Your task to perform on an android device: open app "DuckDuckGo Privacy Browser" (install if not already installed), go to login, and select forgot password Image 0: 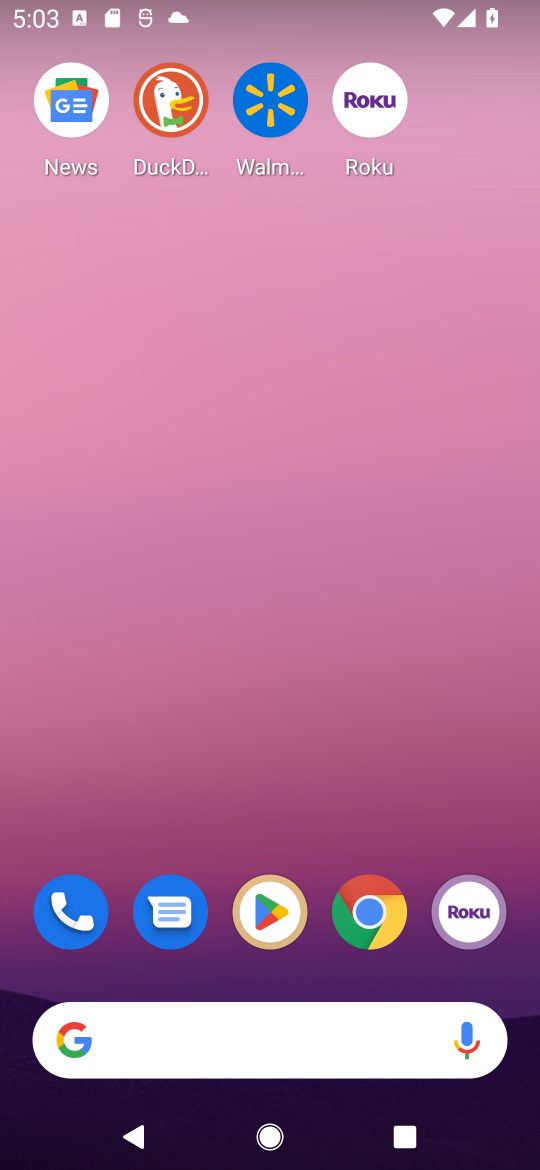
Step 0: drag from (165, 1043) to (123, 47)
Your task to perform on an android device: open app "DuckDuckGo Privacy Browser" (install if not already installed), go to login, and select forgot password Image 1: 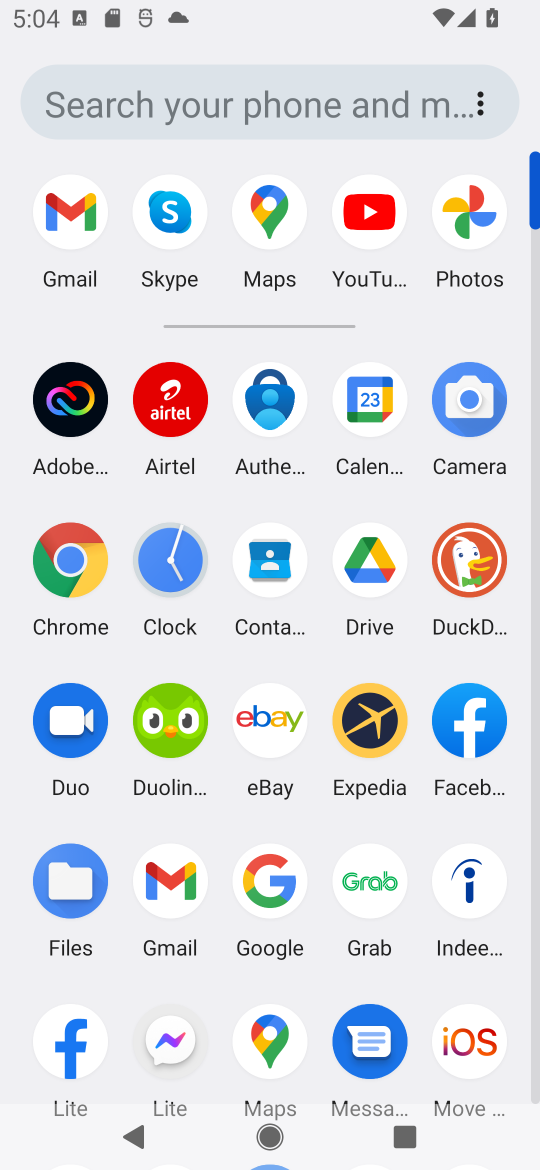
Step 1: drag from (210, 984) to (188, 656)
Your task to perform on an android device: open app "DuckDuckGo Privacy Browser" (install if not already installed), go to login, and select forgot password Image 2: 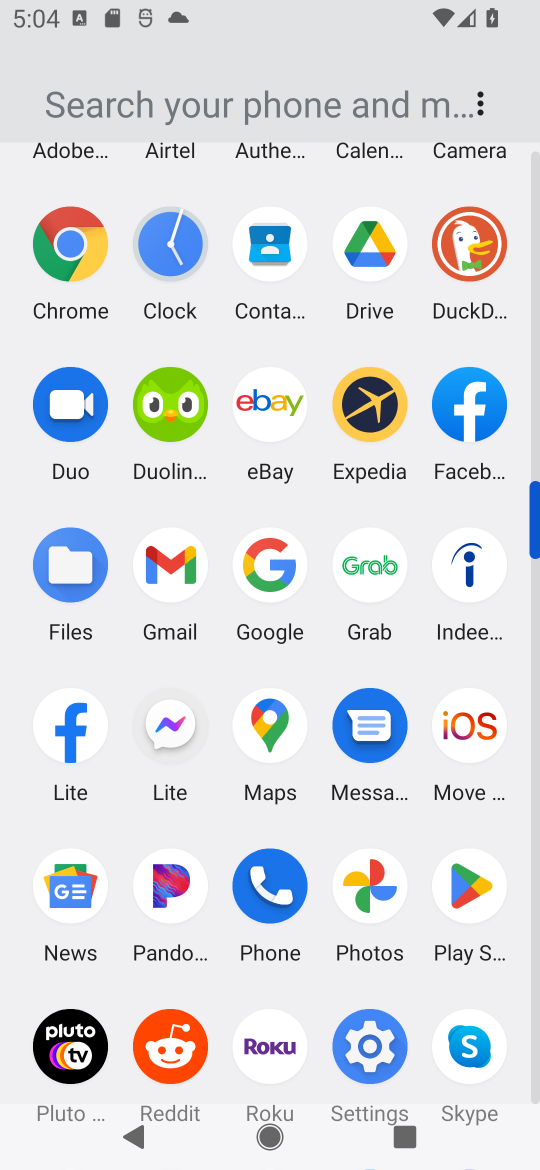
Step 2: click (476, 889)
Your task to perform on an android device: open app "DuckDuckGo Privacy Browser" (install if not already installed), go to login, and select forgot password Image 3: 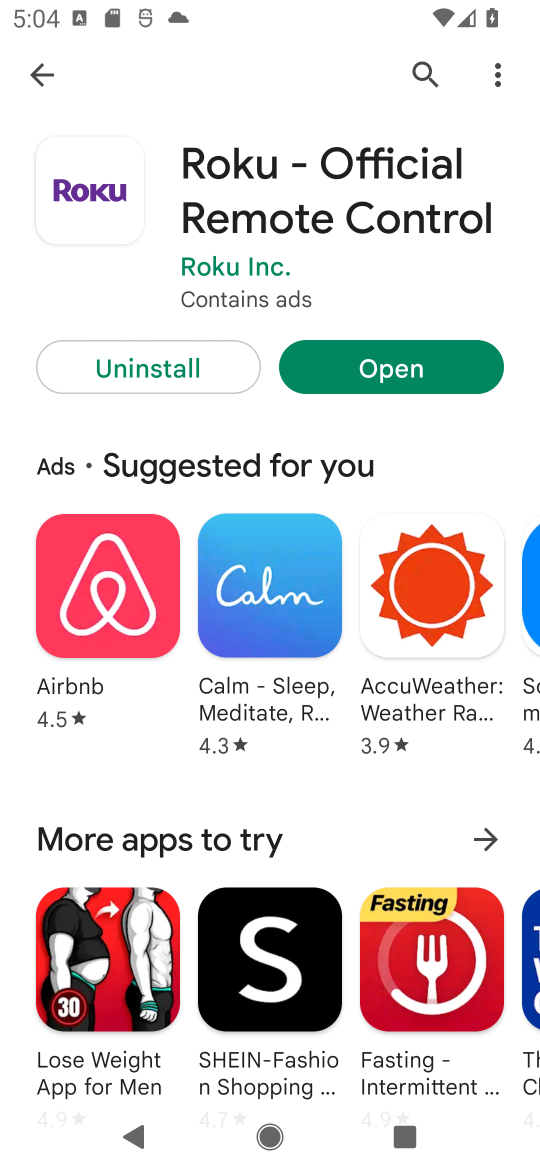
Step 3: press back button
Your task to perform on an android device: open app "DuckDuckGo Privacy Browser" (install if not already installed), go to login, and select forgot password Image 4: 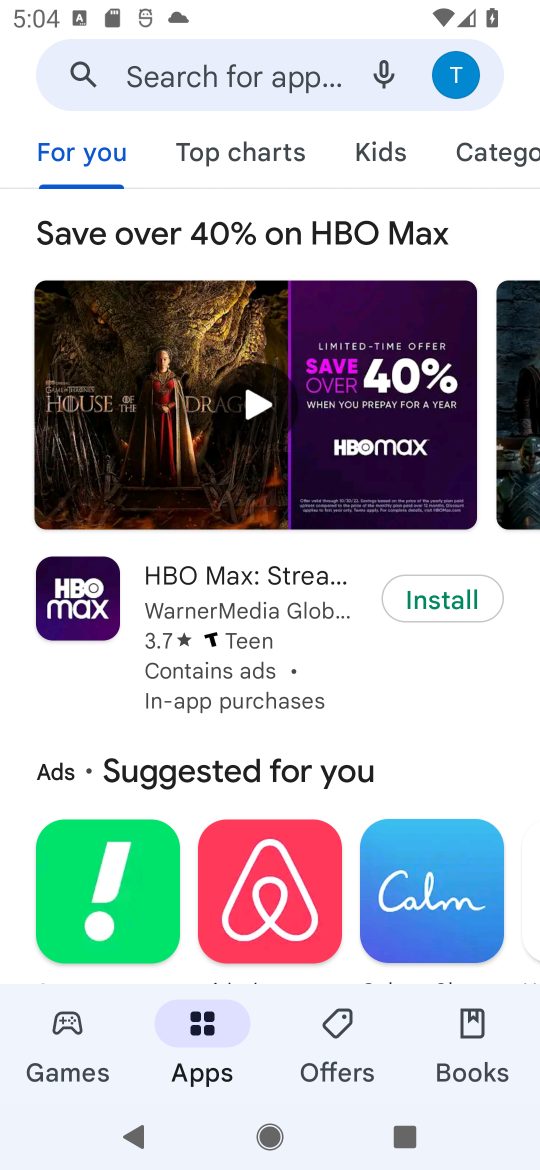
Step 4: click (263, 79)
Your task to perform on an android device: open app "DuckDuckGo Privacy Browser" (install if not already installed), go to login, and select forgot password Image 5: 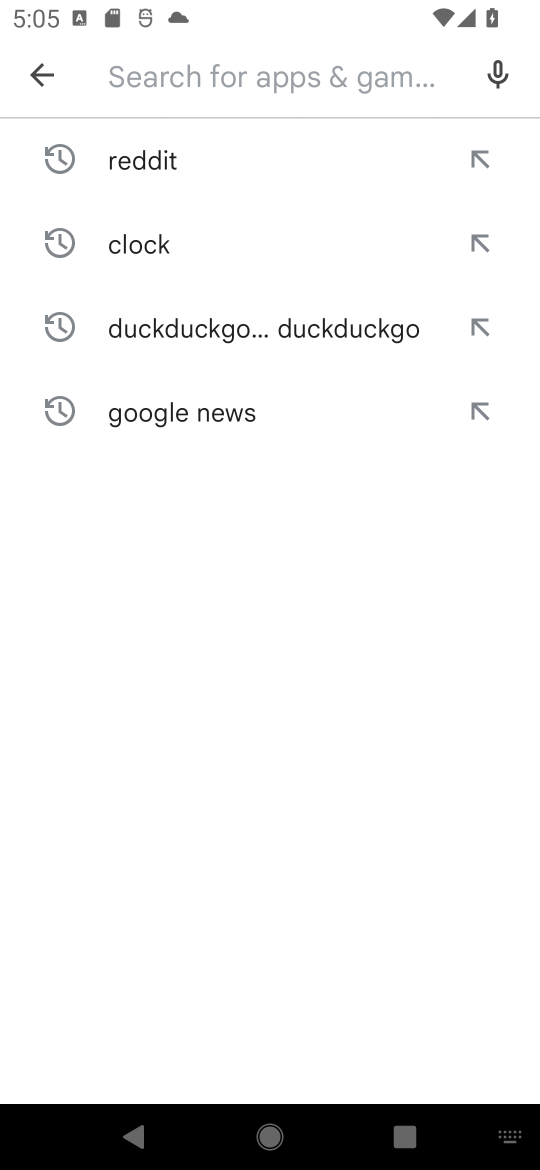
Step 5: type "DuckDuckGo Privacy Browser"
Your task to perform on an android device: open app "DuckDuckGo Privacy Browser" (install if not already installed), go to login, and select forgot password Image 6: 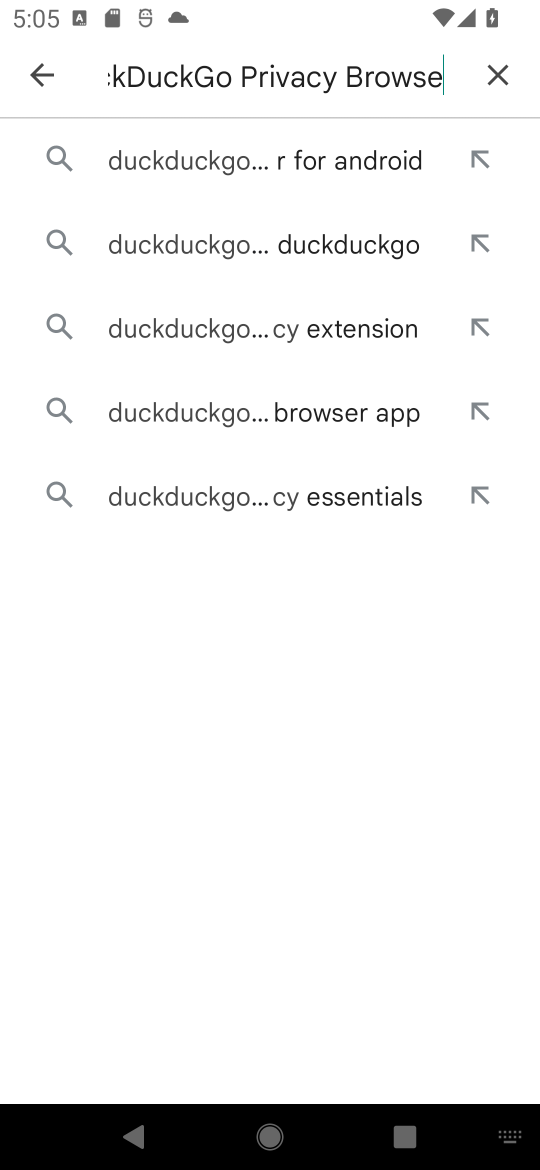
Step 6: type ""
Your task to perform on an android device: open app "DuckDuckGo Privacy Browser" (install if not already installed), go to login, and select forgot password Image 7: 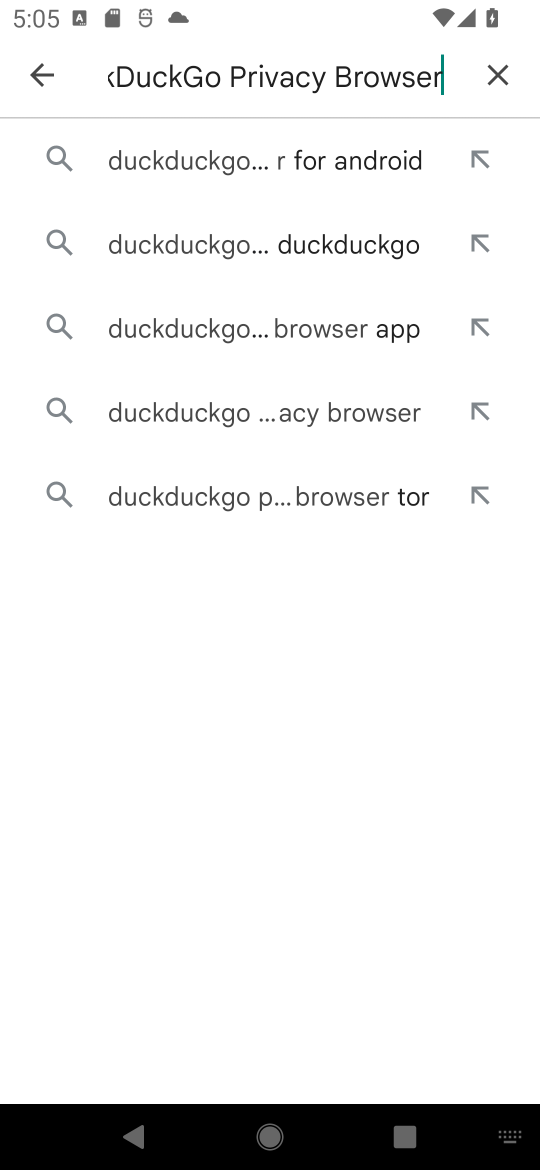
Step 7: click (270, 166)
Your task to perform on an android device: open app "DuckDuckGo Privacy Browser" (install if not already installed), go to login, and select forgot password Image 8: 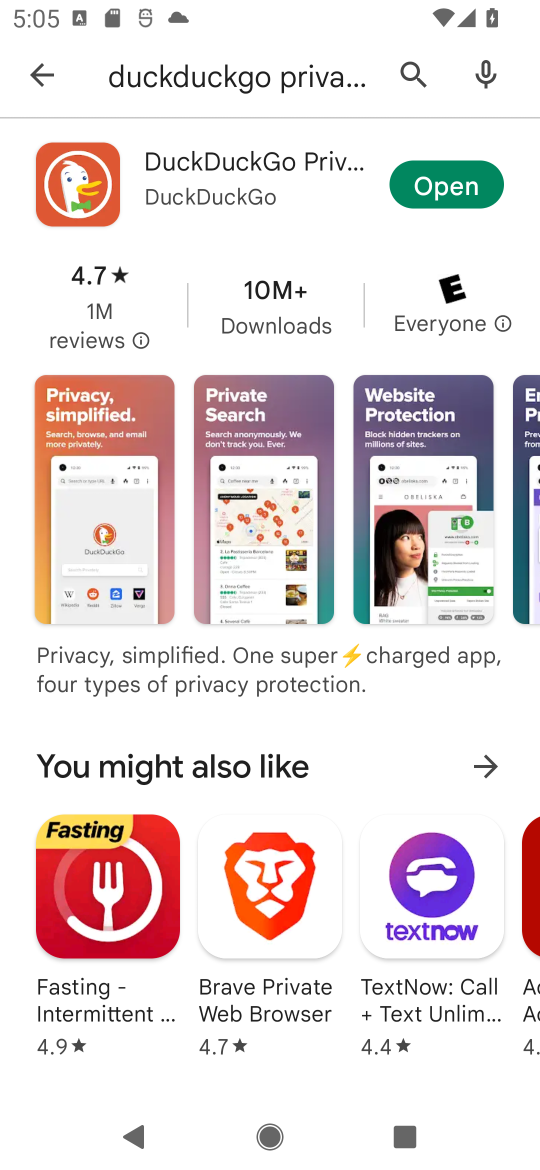
Step 8: click (443, 192)
Your task to perform on an android device: open app "DuckDuckGo Privacy Browser" (install if not already installed), go to login, and select forgot password Image 9: 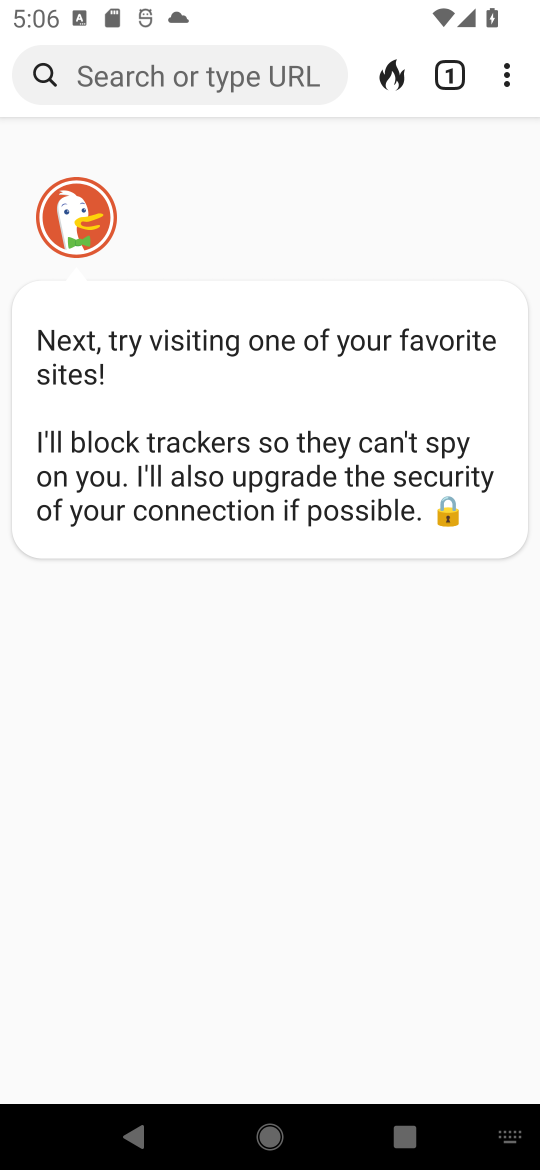
Step 9: task complete